Your task to perform on an android device: turn on javascript in the chrome app Image 0: 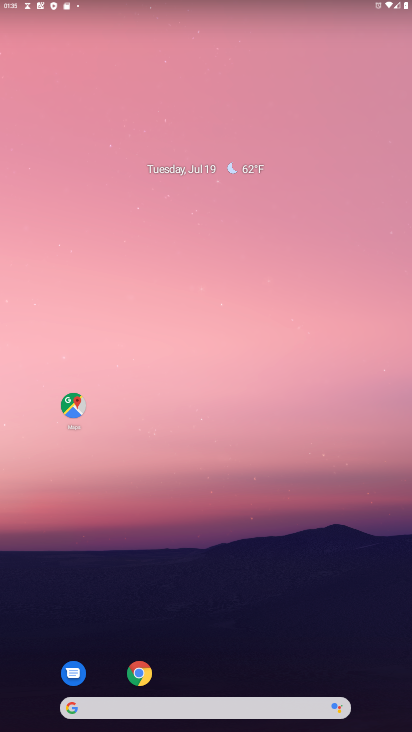
Step 0: drag from (168, 665) to (185, 186)
Your task to perform on an android device: turn on javascript in the chrome app Image 1: 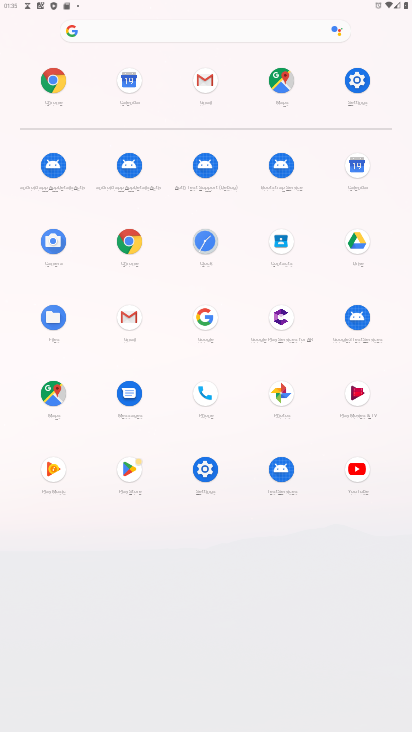
Step 1: click (43, 78)
Your task to perform on an android device: turn on javascript in the chrome app Image 2: 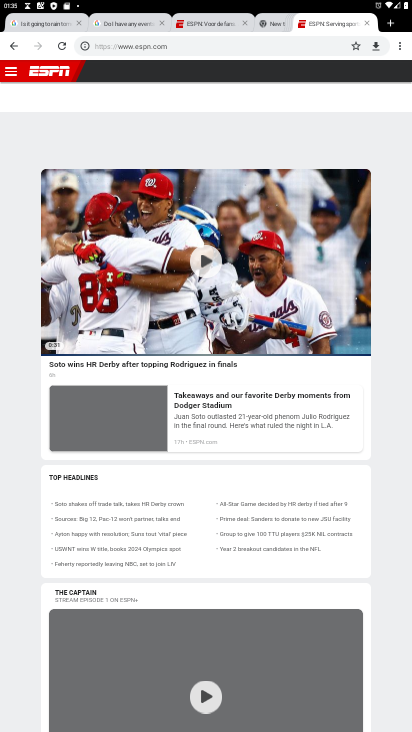
Step 2: click (391, 42)
Your task to perform on an android device: turn on javascript in the chrome app Image 3: 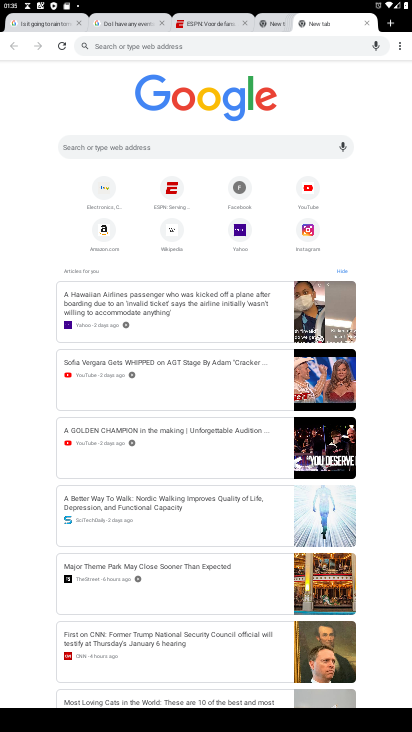
Step 3: click (398, 39)
Your task to perform on an android device: turn on javascript in the chrome app Image 4: 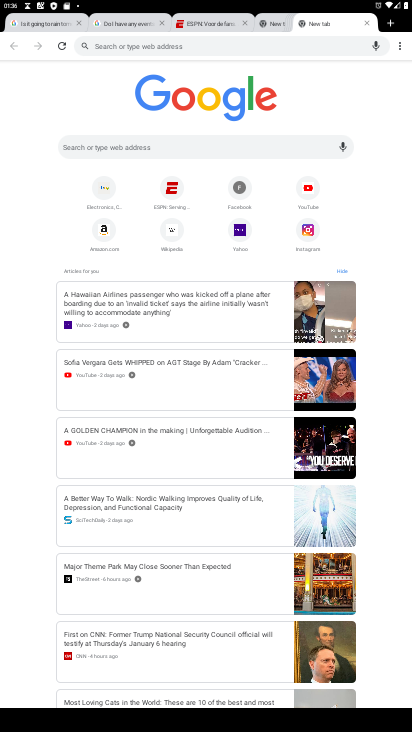
Step 4: click (402, 47)
Your task to perform on an android device: turn on javascript in the chrome app Image 5: 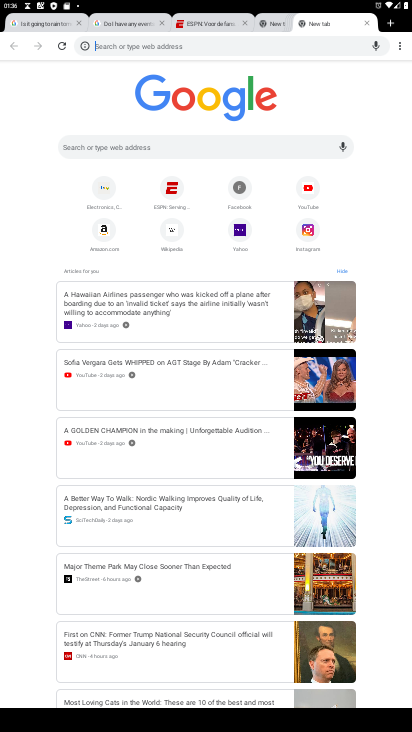
Step 5: click (408, 37)
Your task to perform on an android device: turn on javascript in the chrome app Image 6: 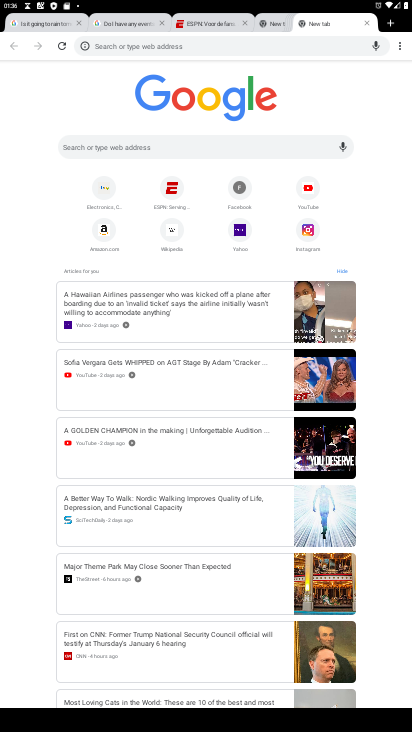
Step 6: click (405, 40)
Your task to perform on an android device: turn on javascript in the chrome app Image 7: 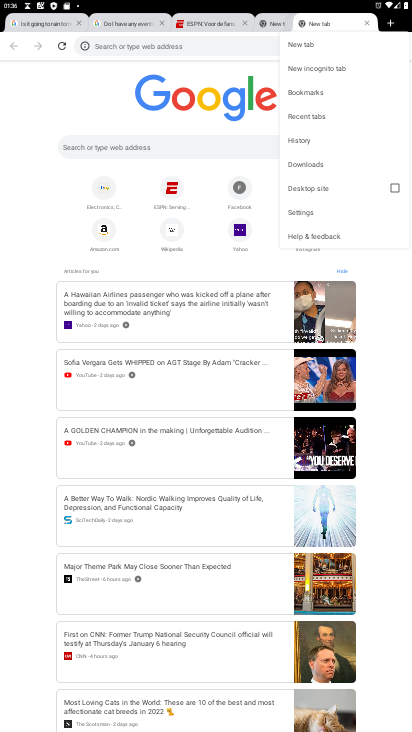
Step 7: click (333, 210)
Your task to perform on an android device: turn on javascript in the chrome app Image 8: 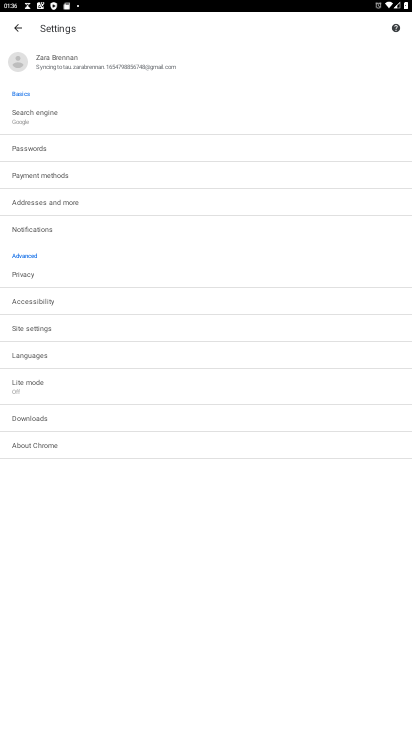
Step 8: click (66, 325)
Your task to perform on an android device: turn on javascript in the chrome app Image 9: 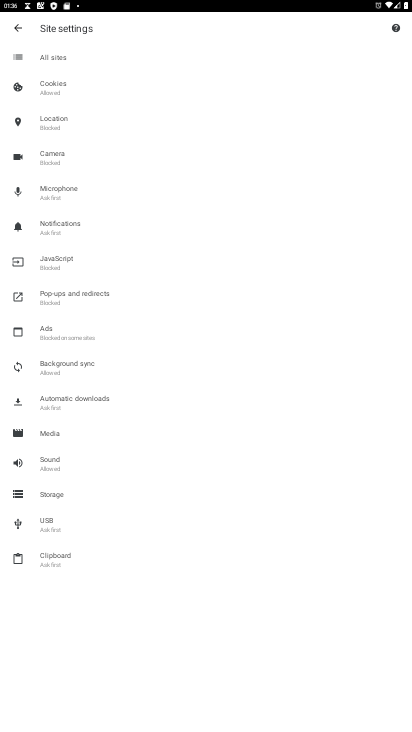
Step 9: click (67, 263)
Your task to perform on an android device: turn on javascript in the chrome app Image 10: 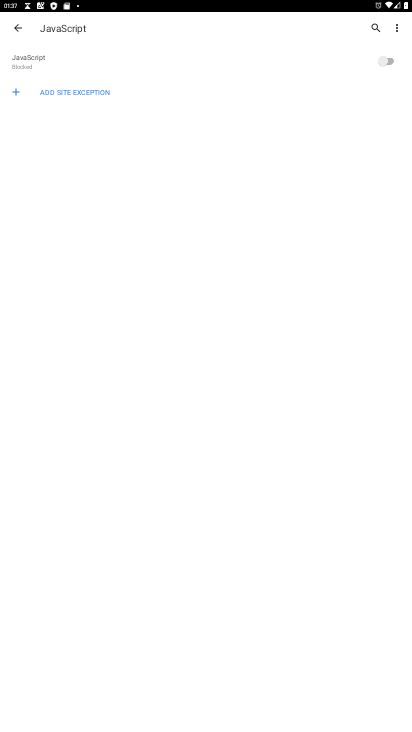
Step 10: click (388, 67)
Your task to perform on an android device: turn on javascript in the chrome app Image 11: 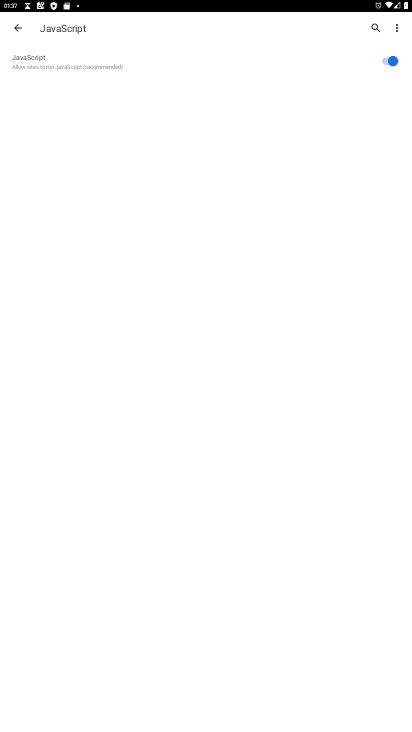
Step 11: task complete